Your task to perform on an android device: toggle airplane mode Image 0: 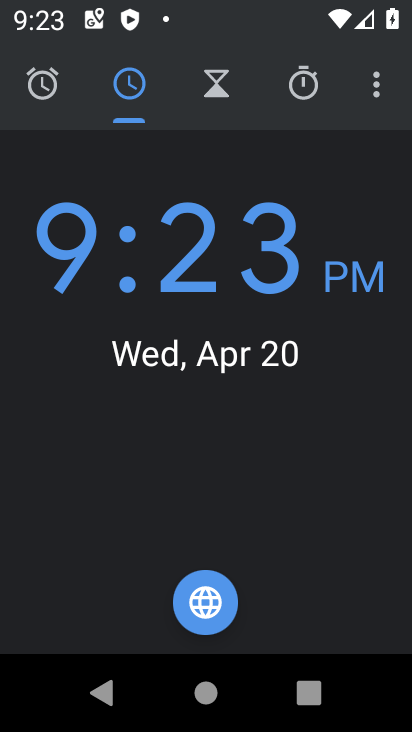
Step 0: press home button
Your task to perform on an android device: toggle airplane mode Image 1: 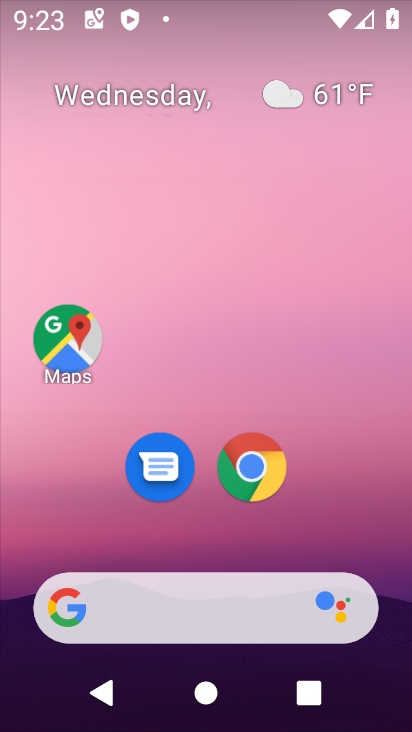
Step 1: drag from (227, 699) to (213, 43)
Your task to perform on an android device: toggle airplane mode Image 2: 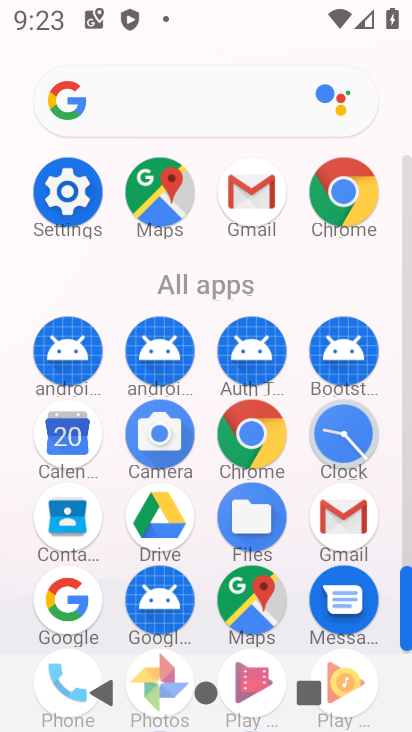
Step 2: click (46, 199)
Your task to perform on an android device: toggle airplane mode Image 3: 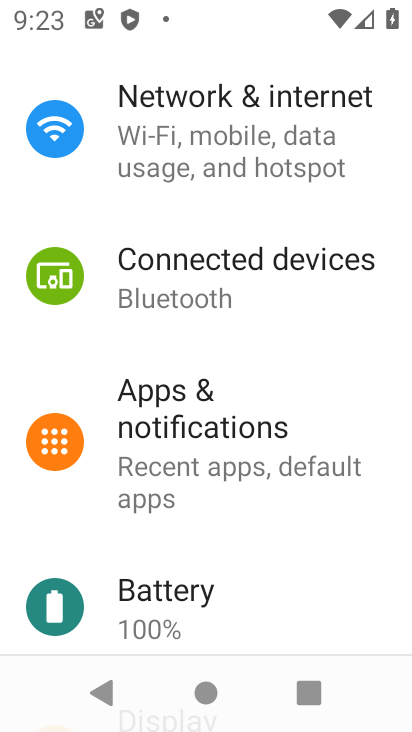
Step 3: click (168, 156)
Your task to perform on an android device: toggle airplane mode Image 4: 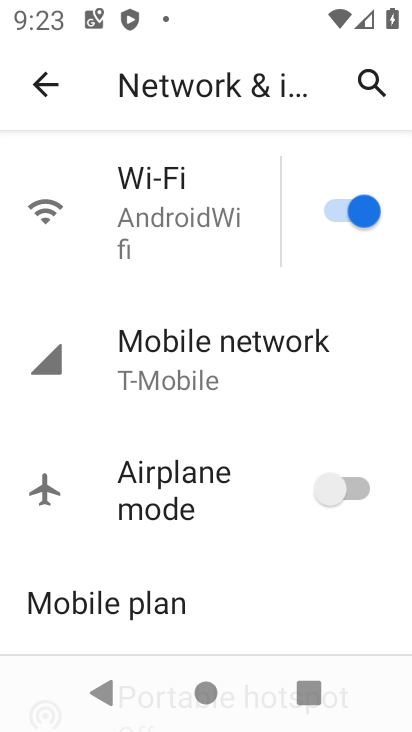
Step 4: click (361, 490)
Your task to perform on an android device: toggle airplane mode Image 5: 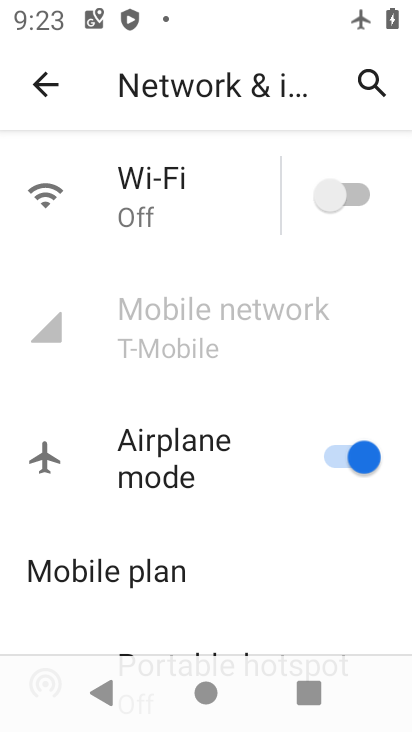
Step 5: task complete